Your task to perform on an android device: Open Chrome and go to settings Image 0: 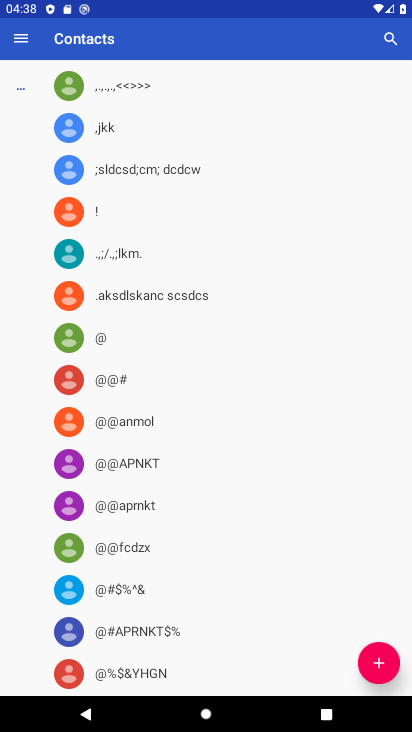
Step 0: press home button
Your task to perform on an android device: Open Chrome and go to settings Image 1: 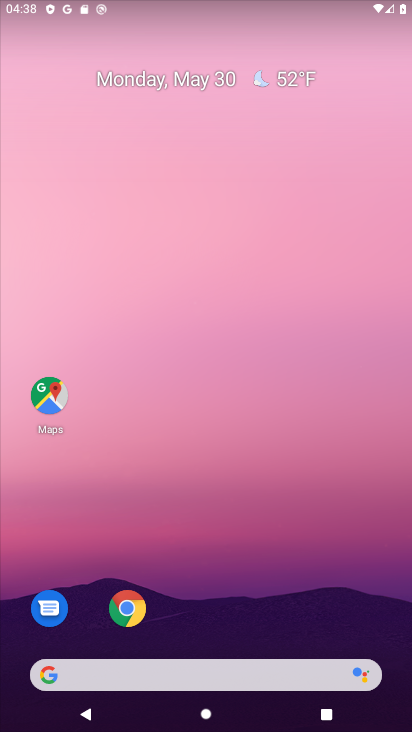
Step 1: click (121, 612)
Your task to perform on an android device: Open Chrome and go to settings Image 2: 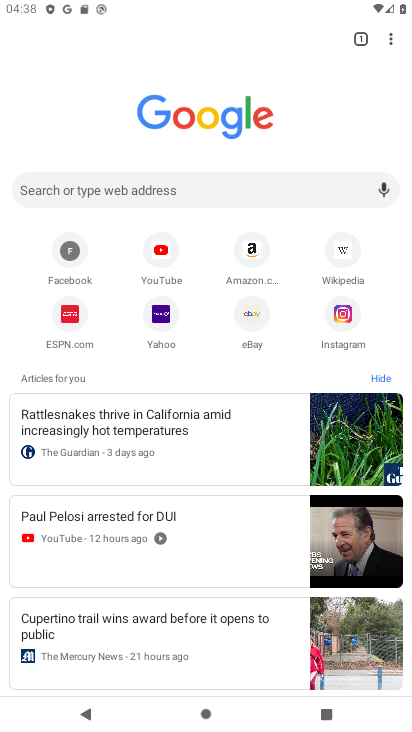
Step 2: click (387, 35)
Your task to perform on an android device: Open Chrome and go to settings Image 3: 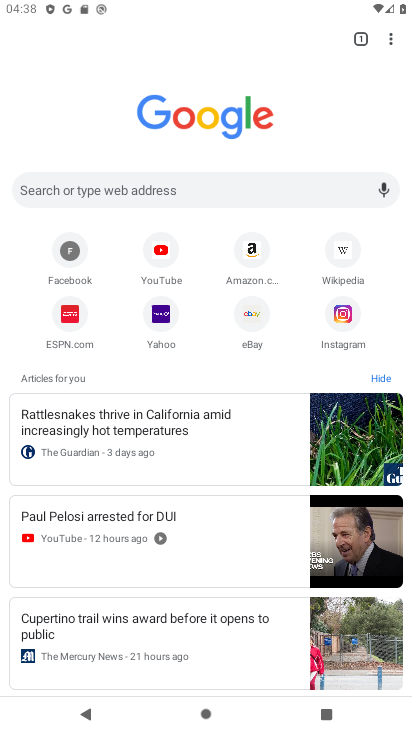
Step 3: click (389, 42)
Your task to perform on an android device: Open Chrome and go to settings Image 4: 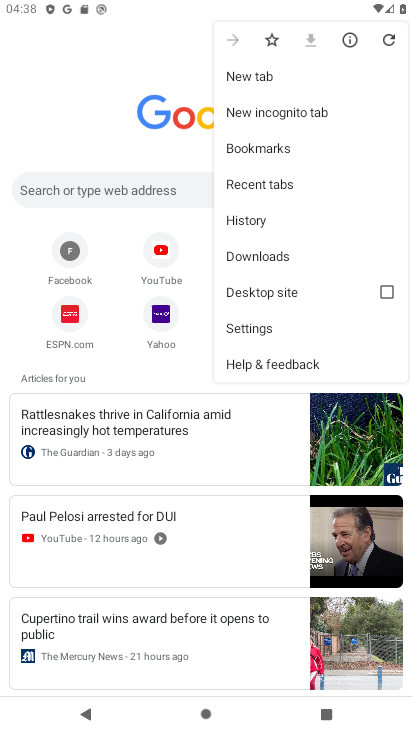
Step 4: click (256, 327)
Your task to perform on an android device: Open Chrome and go to settings Image 5: 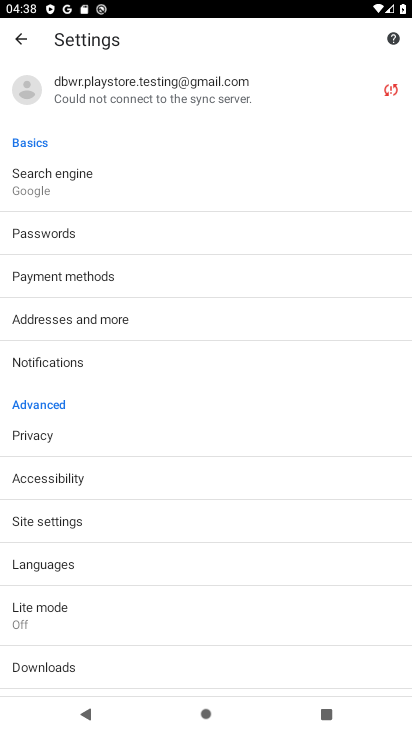
Step 5: task complete